Your task to perform on an android device: Open internet settings Image 0: 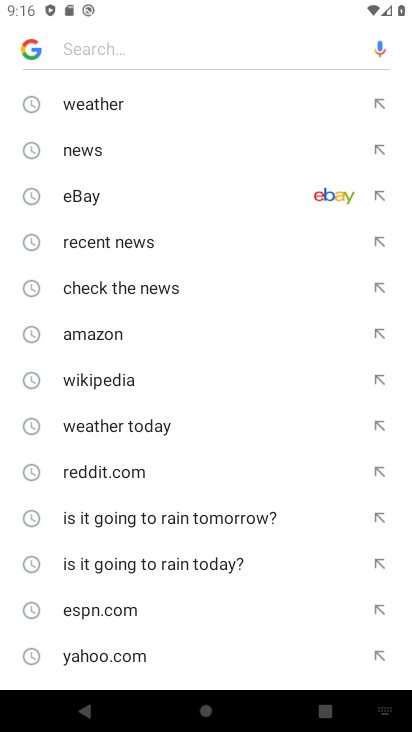
Step 0: press home button
Your task to perform on an android device: Open internet settings Image 1: 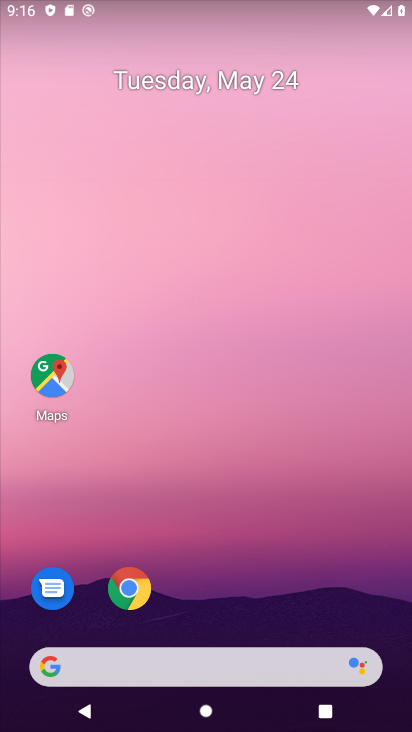
Step 1: drag from (169, 603) to (294, 15)
Your task to perform on an android device: Open internet settings Image 2: 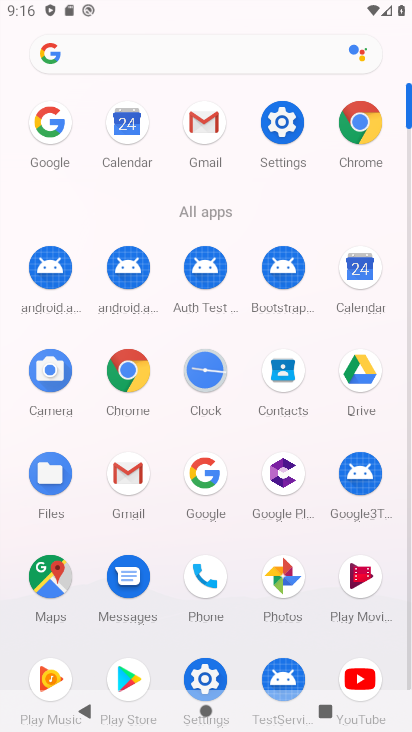
Step 2: click (292, 128)
Your task to perform on an android device: Open internet settings Image 3: 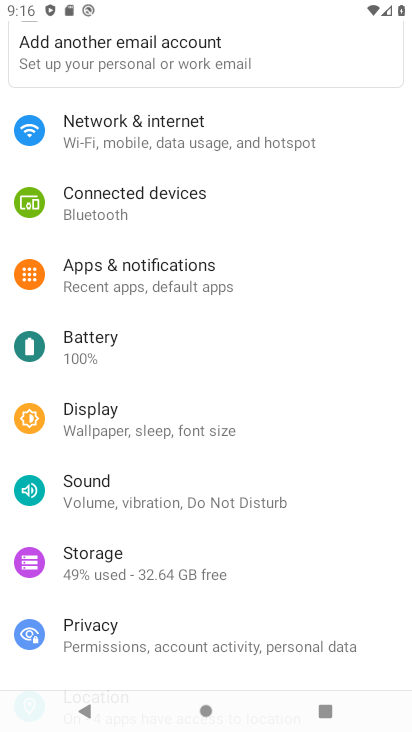
Step 3: click (168, 142)
Your task to perform on an android device: Open internet settings Image 4: 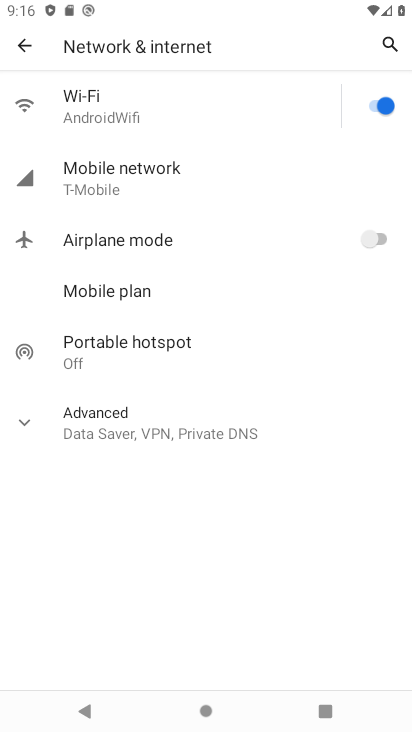
Step 4: task complete